Your task to perform on an android device: turn on sleep mode Image 0: 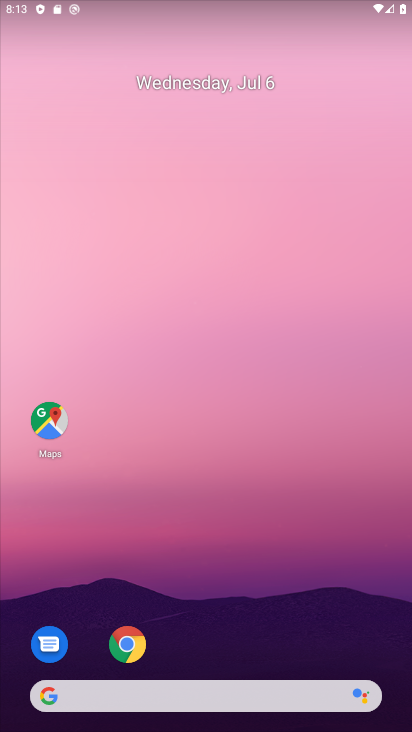
Step 0: drag from (226, 628) to (256, 18)
Your task to perform on an android device: turn on sleep mode Image 1: 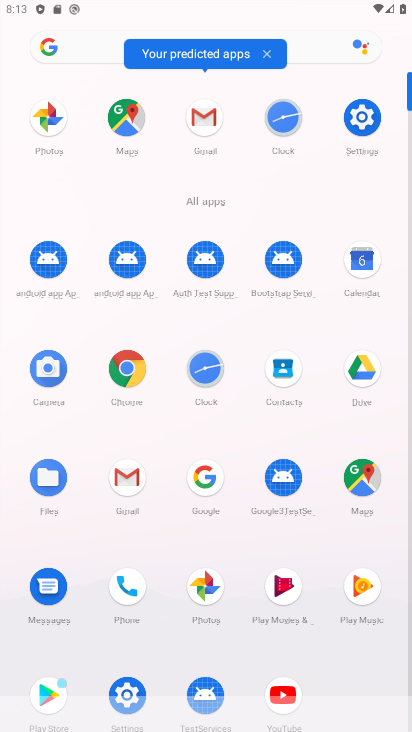
Step 1: click (366, 121)
Your task to perform on an android device: turn on sleep mode Image 2: 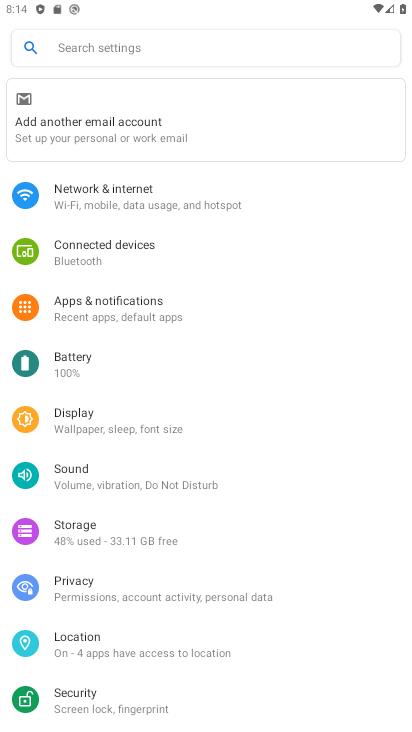
Step 2: drag from (91, 371) to (127, 310)
Your task to perform on an android device: turn on sleep mode Image 3: 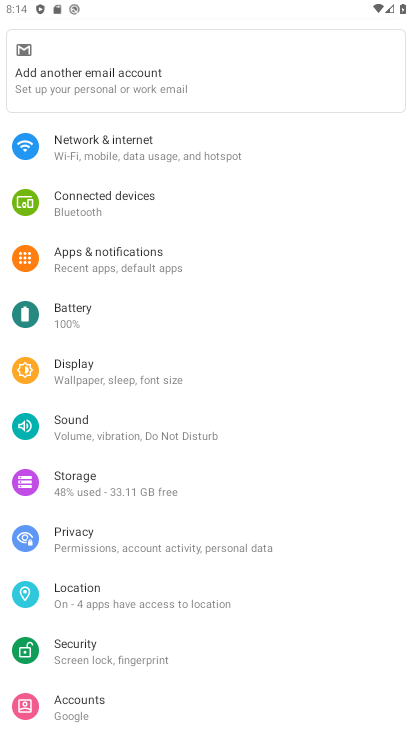
Step 3: click (123, 369)
Your task to perform on an android device: turn on sleep mode Image 4: 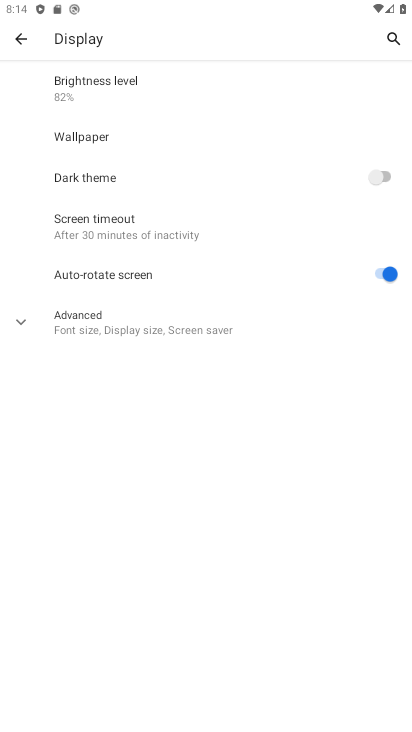
Step 4: click (120, 315)
Your task to perform on an android device: turn on sleep mode Image 5: 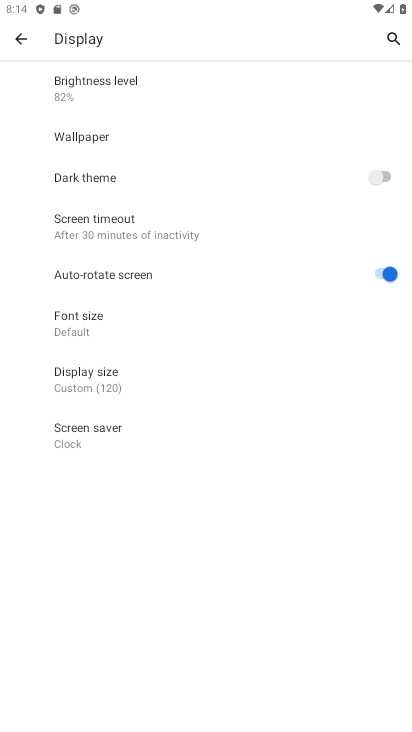
Step 5: click (105, 423)
Your task to perform on an android device: turn on sleep mode Image 6: 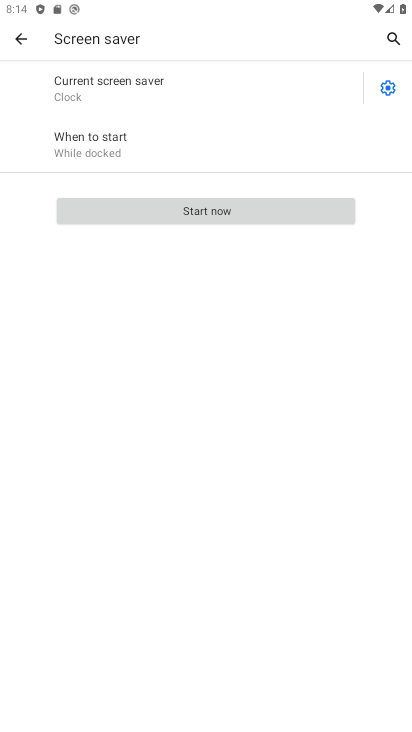
Step 6: press back button
Your task to perform on an android device: turn on sleep mode Image 7: 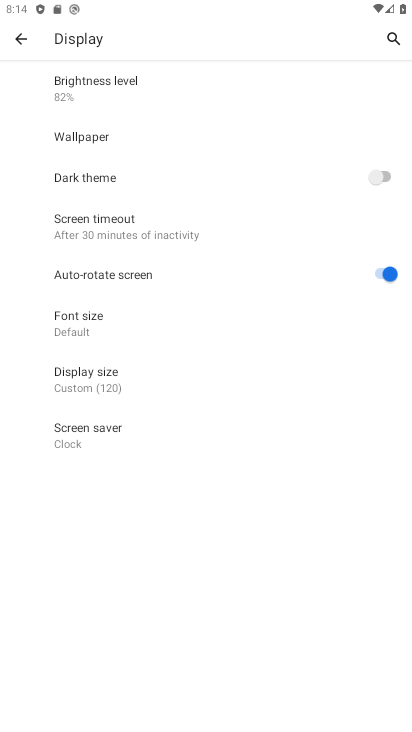
Step 7: click (95, 326)
Your task to perform on an android device: turn on sleep mode Image 8: 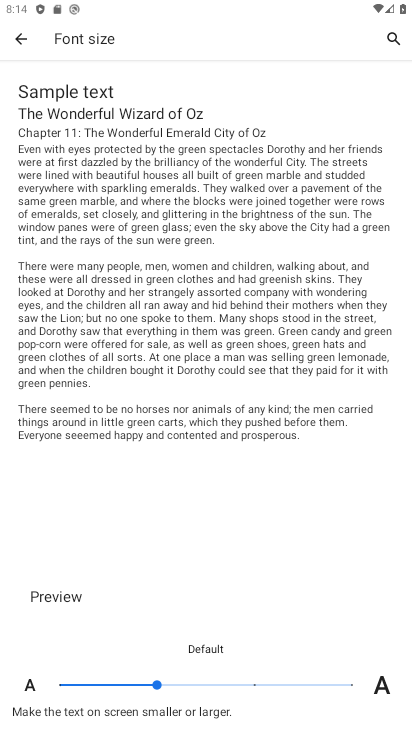
Step 8: task complete